Your task to perform on an android device: Go to sound settings Image 0: 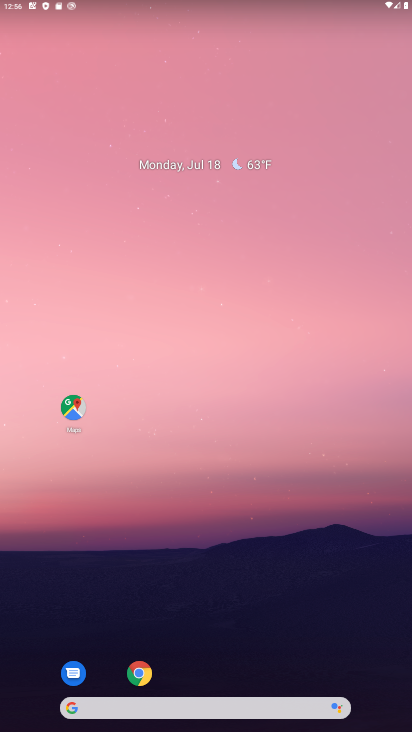
Step 0: click (184, 121)
Your task to perform on an android device: Go to sound settings Image 1: 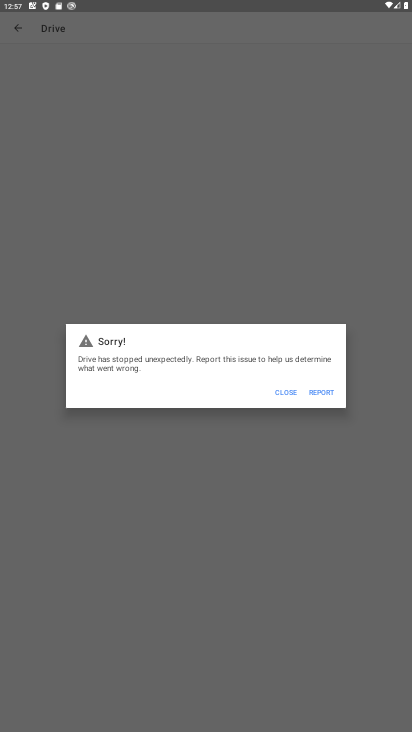
Step 1: press home button
Your task to perform on an android device: Go to sound settings Image 2: 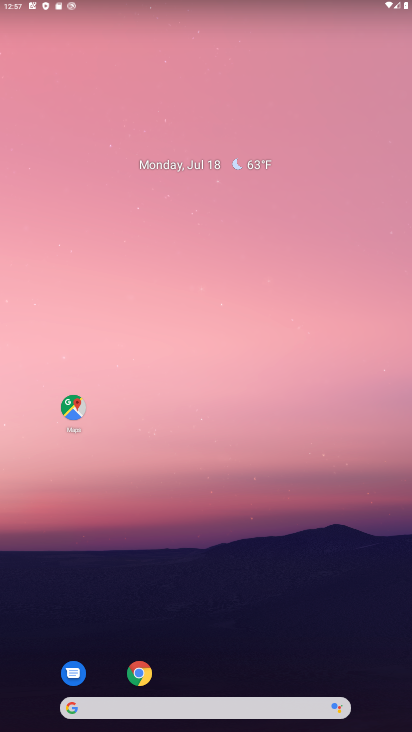
Step 2: drag from (260, 694) to (249, 330)
Your task to perform on an android device: Go to sound settings Image 3: 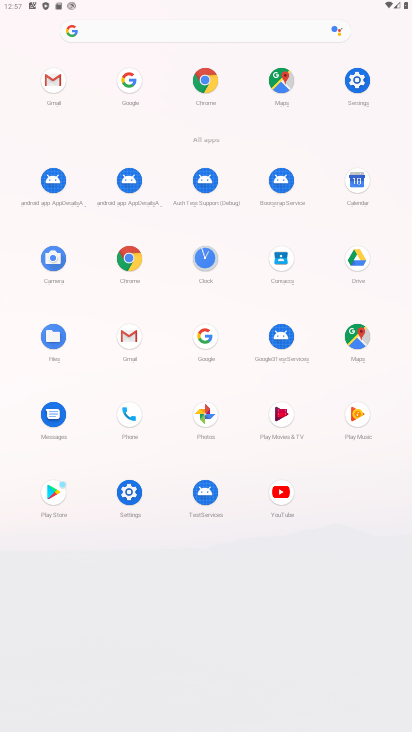
Step 3: click (356, 74)
Your task to perform on an android device: Go to sound settings Image 4: 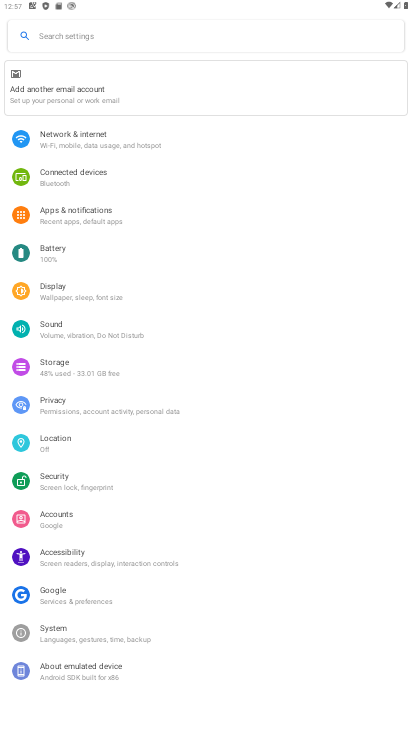
Step 4: click (80, 312)
Your task to perform on an android device: Go to sound settings Image 5: 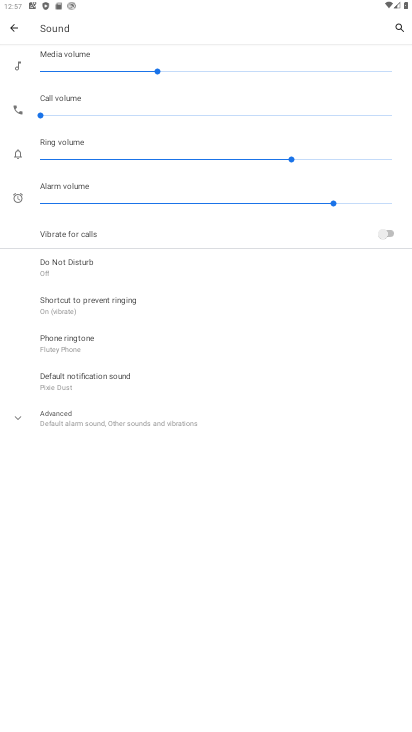
Step 5: task complete